Your task to perform on an android device: What's on my calendar tomorrow? Image 0: 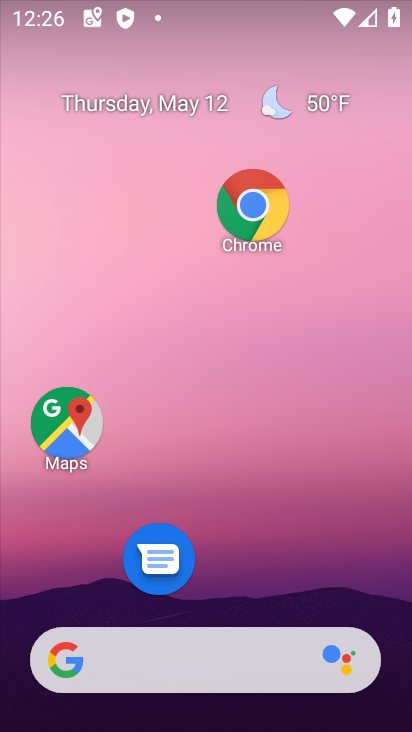
Step 0: drag from (295, 574) to (254, 165)
Your task to perform on an android device: What's on my calendar tomorrow? Image 1: 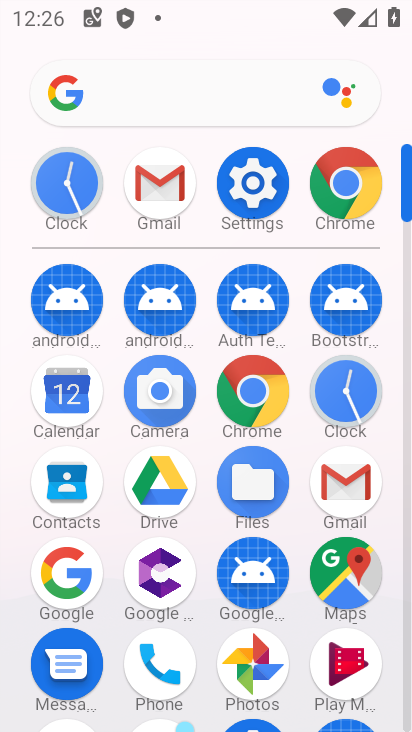
Step 1: click (74, 429)
Your task to perform on an android device: What's on my calendar tomorrow? Image 2: 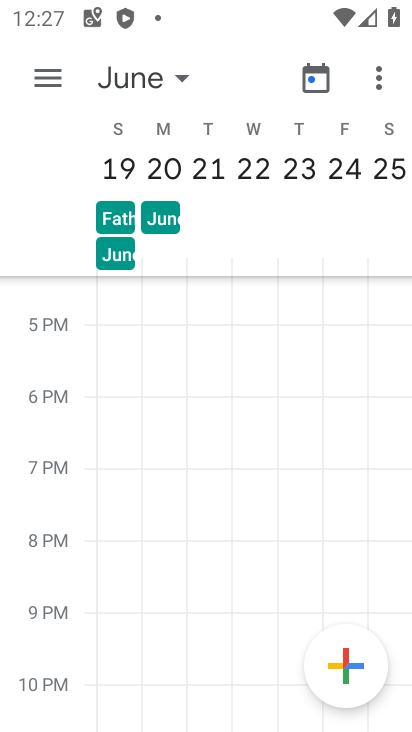
Step 2: click (44, 83)
Your task to perform on an android device: What's on my calendar tomorrow? Image 3: 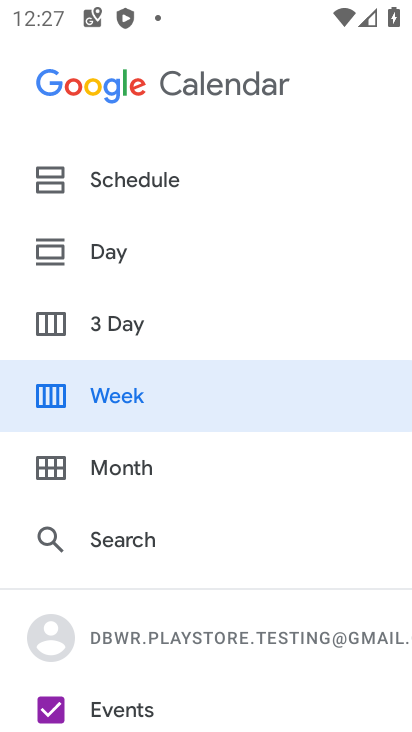
Step 3: drag from (174, 586) to (150, 443)
Your task to perform on an android device: What's on my calendar tomorrow? Image 4: 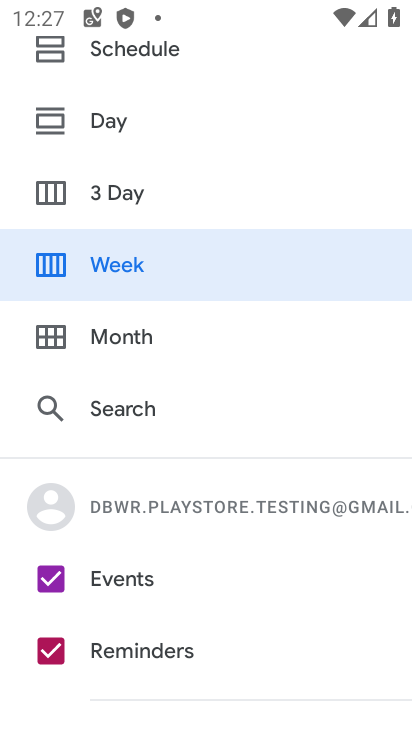
Step 4: press back button
Your task to perform on an android device: What's on my calendar tomorrow? Image 5: 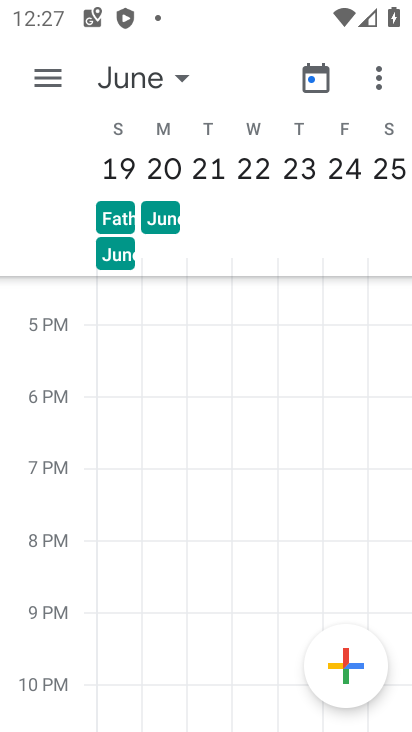
Step 5: click (133, 88)
Your task to perform on an android device: What's on my calendar tomorrow? Image 6: 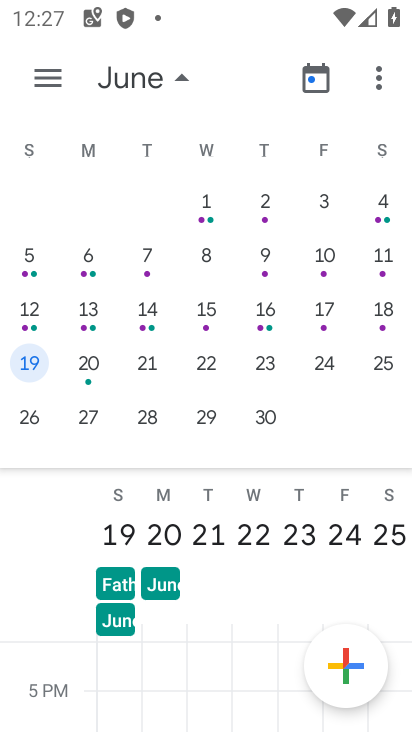
Step 6: drag from (56, 346) to (362, 316)
Your task to perform on an android device: What's on my calendar tomorrow? Image 7: 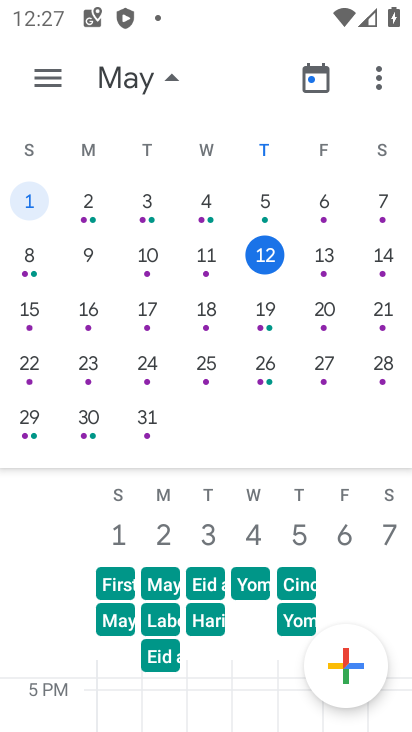
Step 7: click (325, 261)
Your task to perform on an android device: What's on my calendar tomorrow? Image 8: 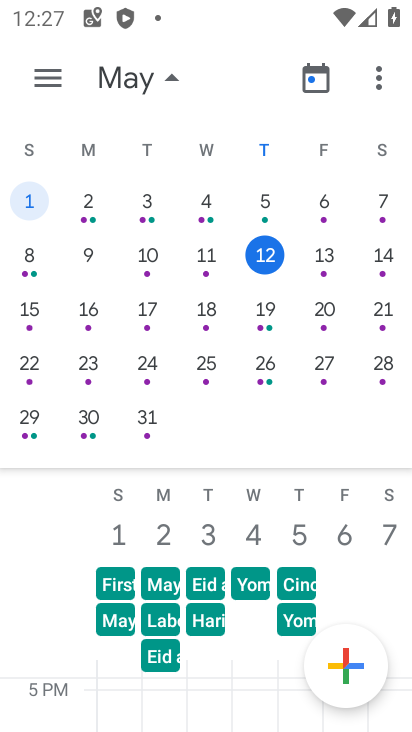
Step 8: click (325, 261)
Your task to perform on an android device: What's on my calendar tomorrow? Image 9: 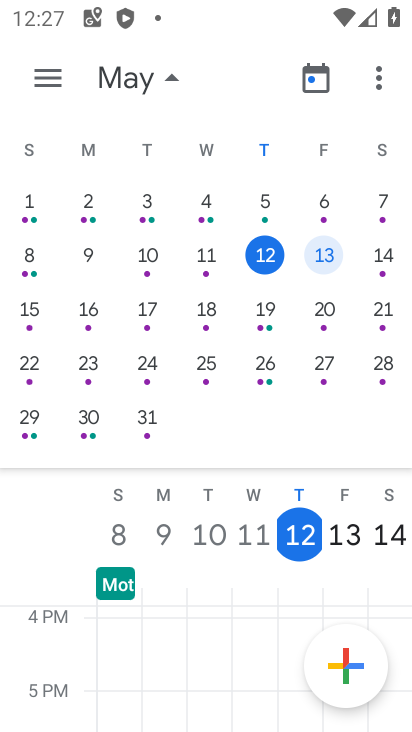
Step 9: click (45, 76)
Your task to perform on an android device: What's on my calendar tomorrow? Image 10: 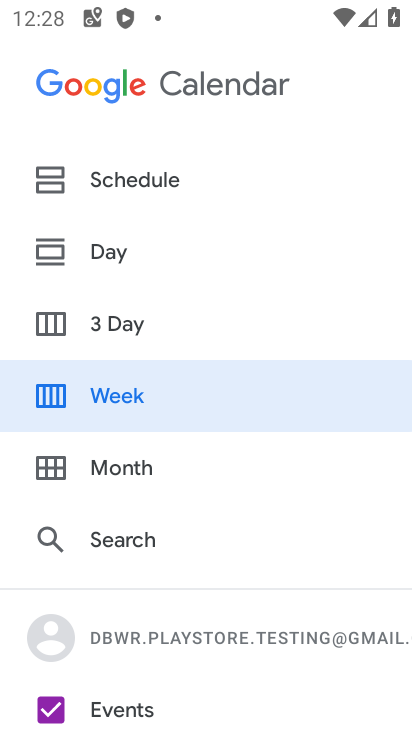
Step 10: click (107, 187)
Your task to perform on an android device: What's on my calendar tomorrow? Image 11: 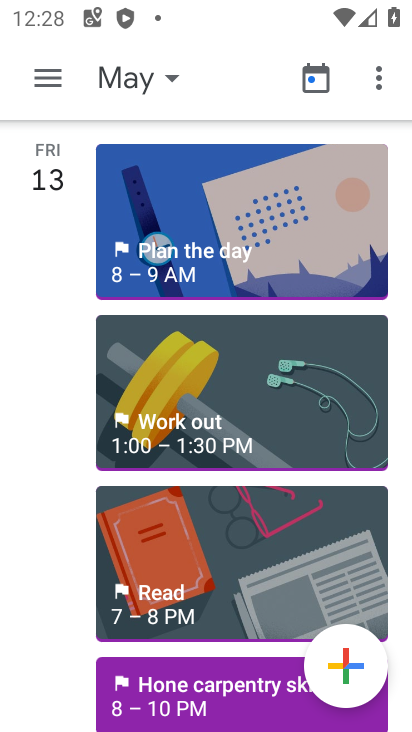
Step 11: task complete